Your task to perform on an android device: turn on priority inbox in the gmail app Image 0: 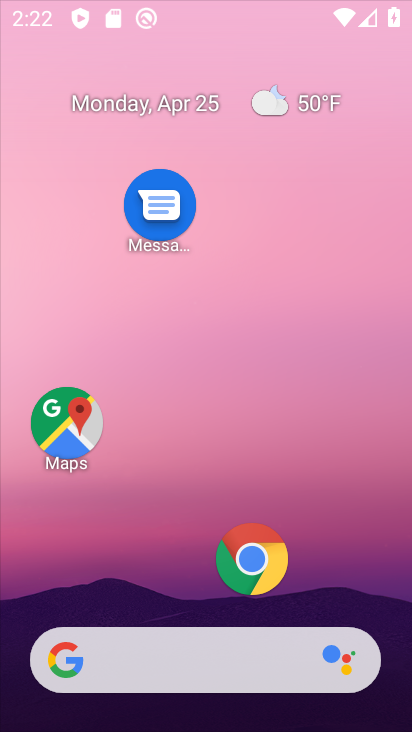
Step 0: press back button
Your task to perform on an android device: turn on priority inbox in the gmail app Image 1: 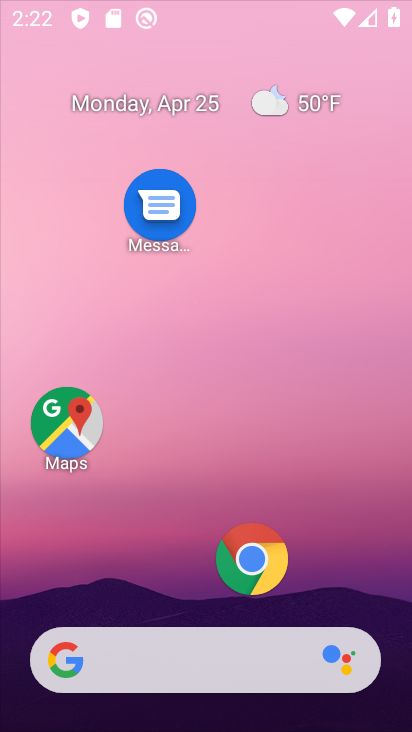
Step 1: press home button
Your task to perform on an android device: turn on priority inbox in the gmail app Image 2: 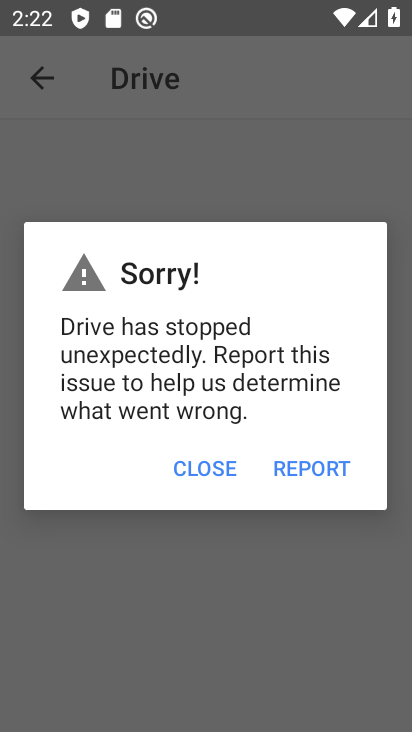
Step 2: click (202, 4)
Your task to perform on an android device: turn on priority inbox in the gmail app Image 3: 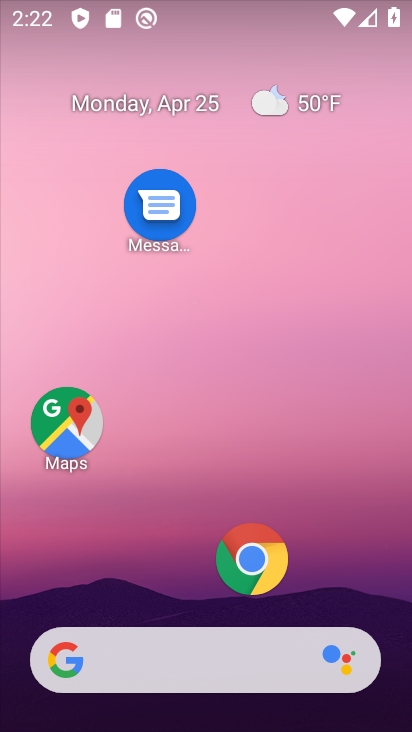
Step 3: drag from (165, 567) to (205, 5)
Your task to perform on an android device: turn on priority inbox in the gmail app Image 4: 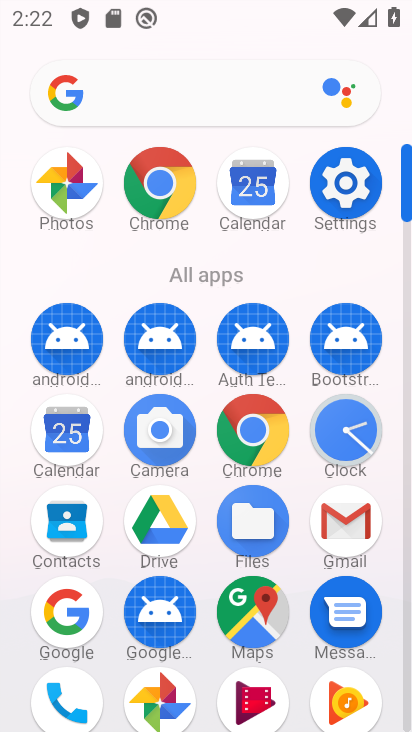
Step 4: click (348, 532)
Your task to perform on an android device: turn on priority inbox in the gmail app Image 5: 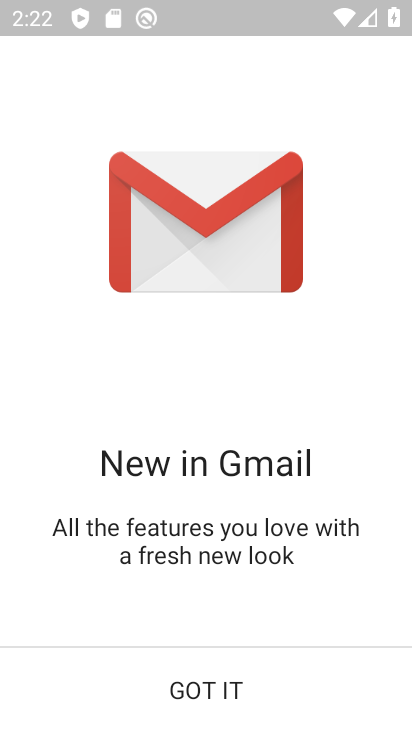
Step 5: click (235, 702)
Your task to perform on an android device: turn on priority inbox in the gmail app Image 6: 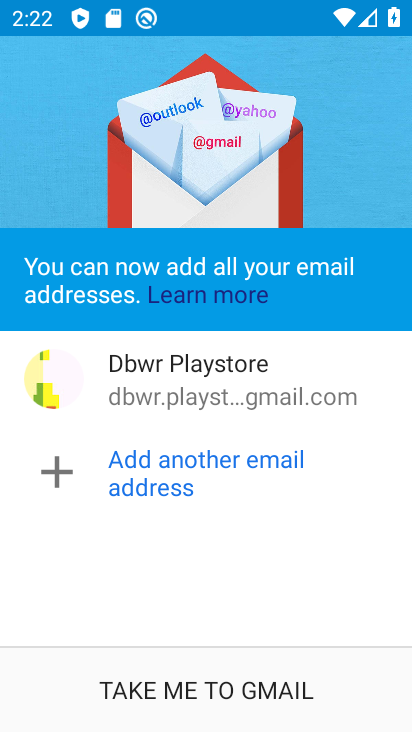
Step 6: click (241, 698)
Your task to perform on an android device: turn on priority inbox in the gmail app Image 7: 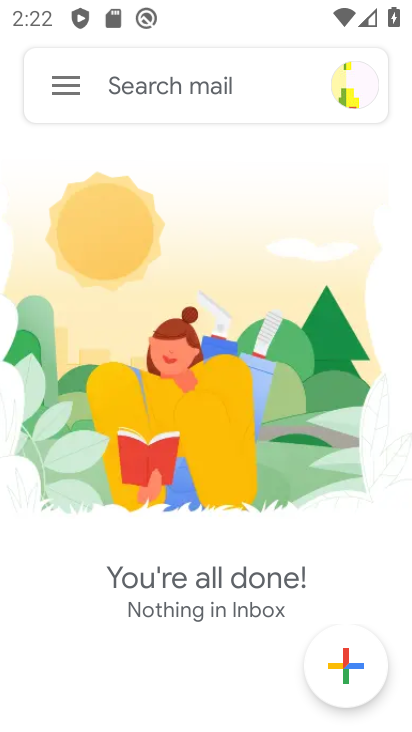
Step 7: click (49, 91)
Your task to perform on an android device: turn on priority inbox in the gmail app Image 8: 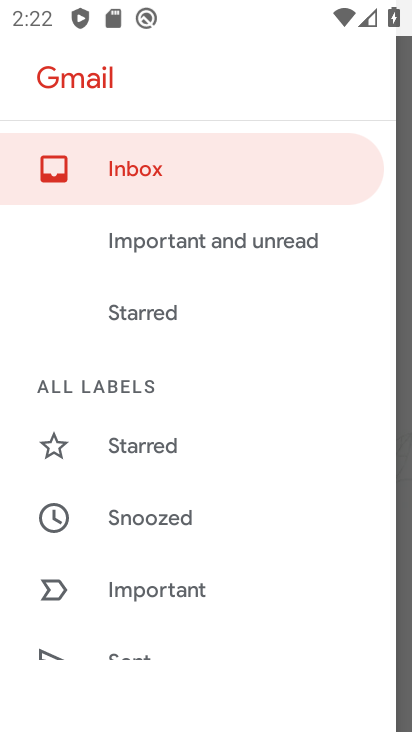
Step 8: drag from (152, 544) to (242, 20)
Your task to perform on an android device: turn on priority inbox in the gmail app Image 9: 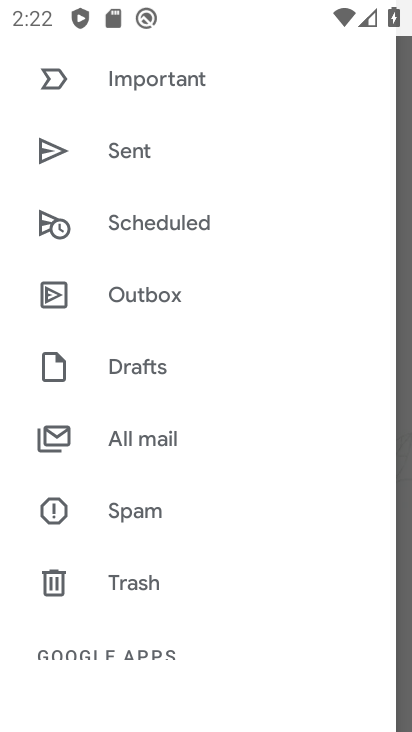
Step 9: drag from (164, 536) to (229, 43)
Your task to perform on an android device: turn on priority inbox in the gmail app Image 10: 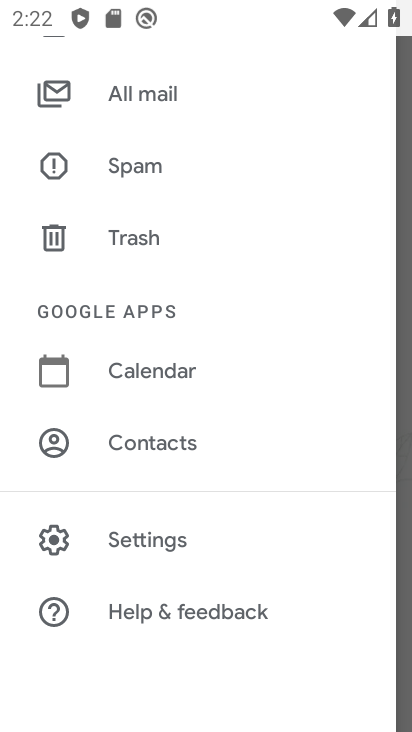
Step 10: click (161, 541)
Your task to perform on an android device: turn on priority inbox in the gmail app Image 11: 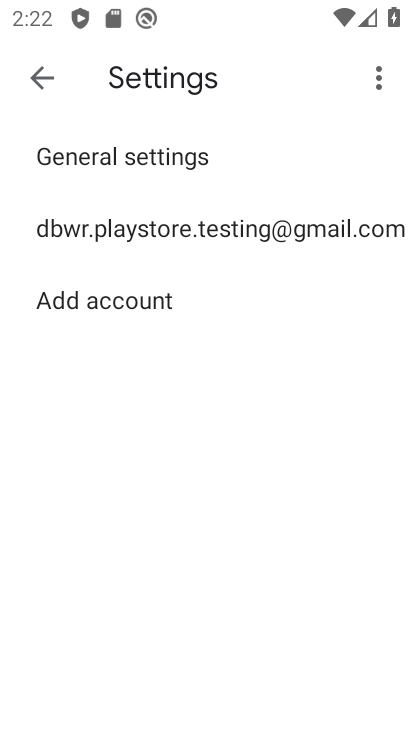
Step 11: click (137, 229)
Your task to perform on an android device: turn on priority inbox in the gmail app Image 12: 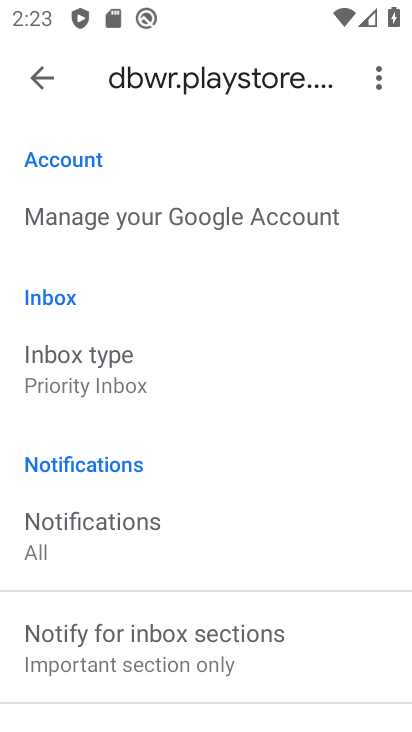
Step 12: click (87, 351)
Your task to perform on an android device: turn on priority inbox in the gmail app Image 13: 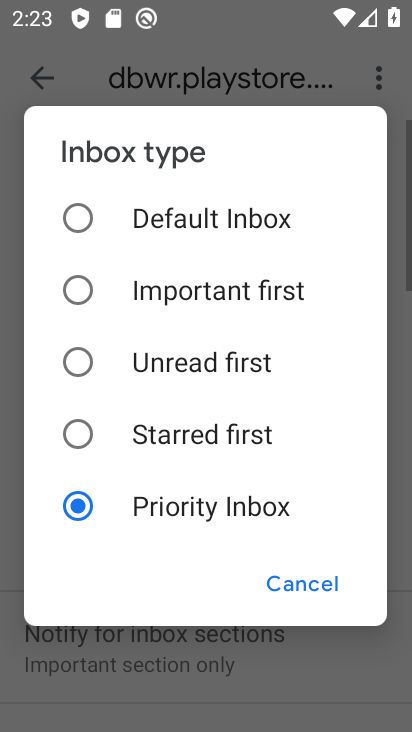
Step 13: task complete